Your task to perform on an android device: delete location history Image 0: 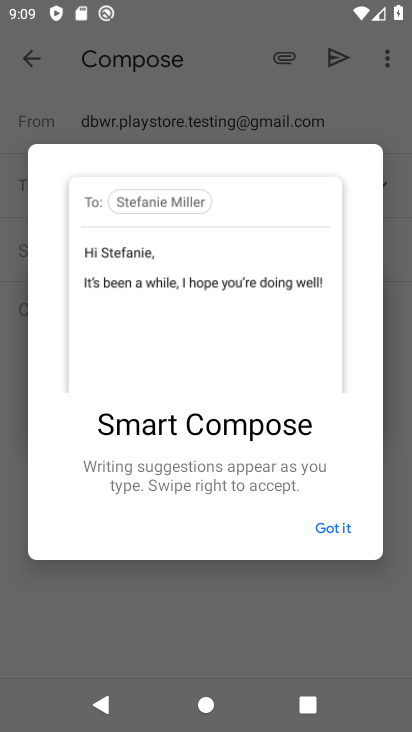
Step 0: press home button
Your task to perform on an android device: delete location history Image 1: 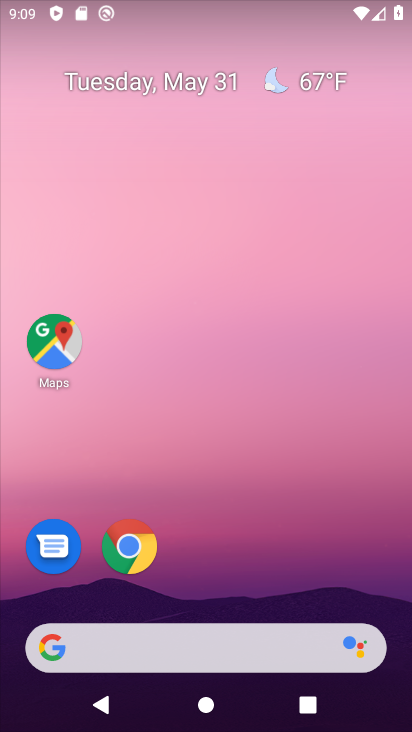
Step 1: click (51, 337)
Your task to perform on an android device: delete location history Image 2: 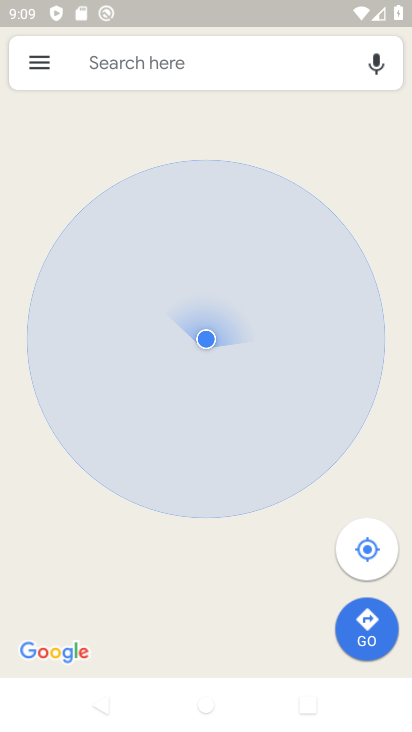
Step 2: click (40, 57)
Your task to perform on an android device: delete location history Image 3: 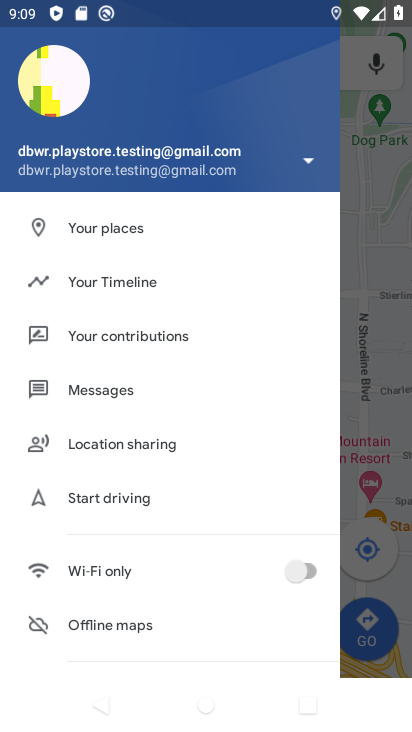
Step 3: click (122, 282)
Your task to perform on an android device: delete location history Image 4: 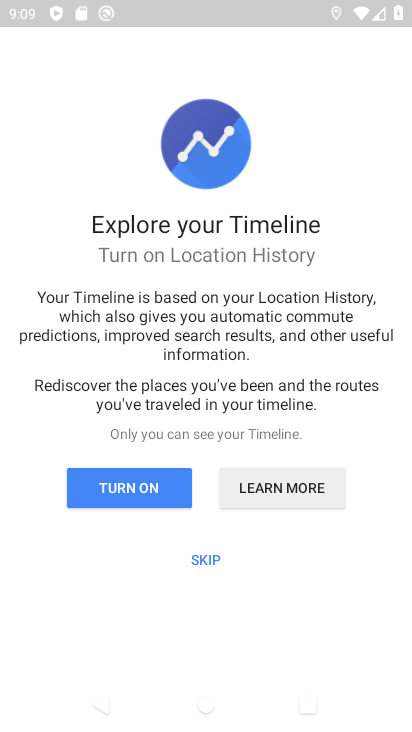
Step 4: click (209, 551)
Your task to perform on an android device: delete location history Image 5: 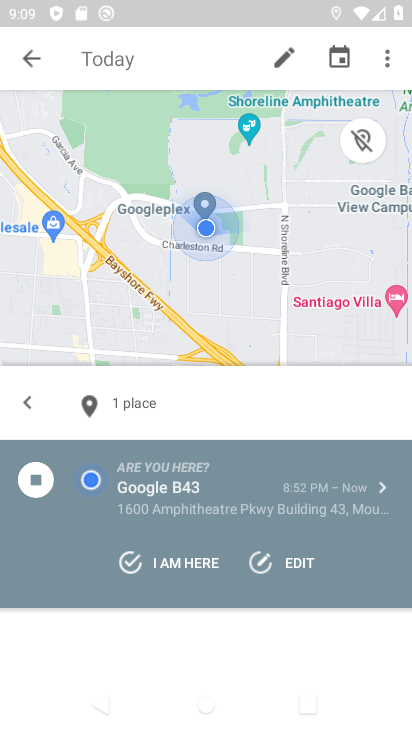
Step 5: click (382, 59)
Your task to perform on an android device: delete location history Image 6: 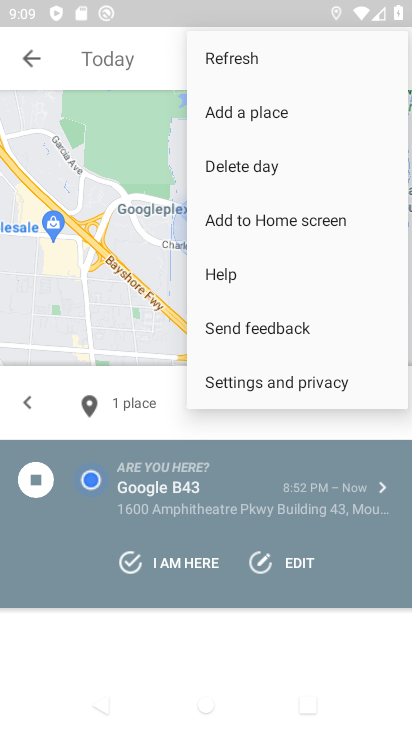
Step 6: click (278, 390)
Your task to perform on an android device: delete location history Image 7: 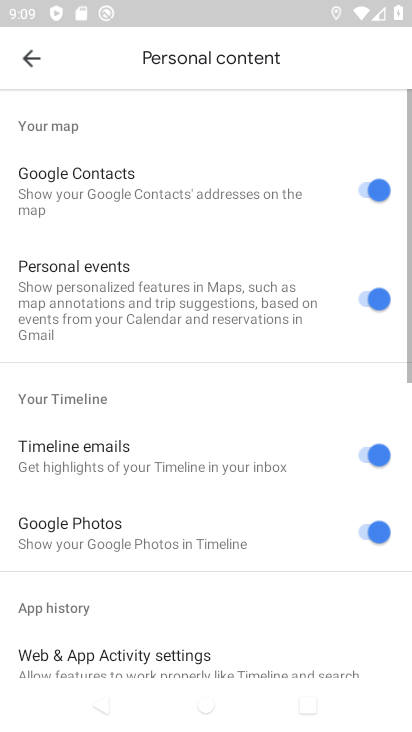
Step 7: drag from (118, 551) to (160, 86)
Your task to perform on an android device: delete location history Image 8: 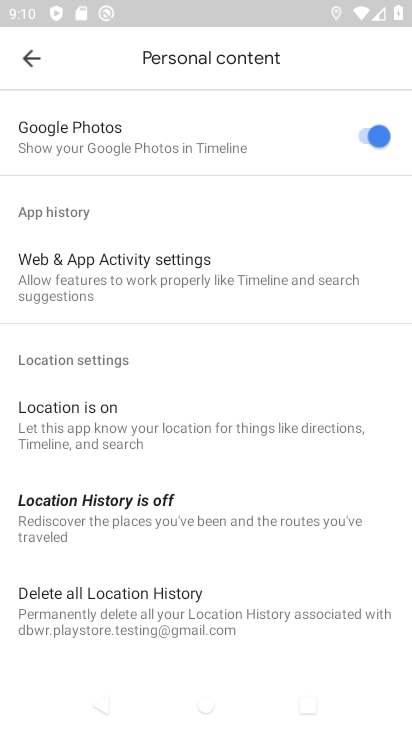
Step 8: click (156, 601)
Your task to perform on an android device: delete location history Image 9: 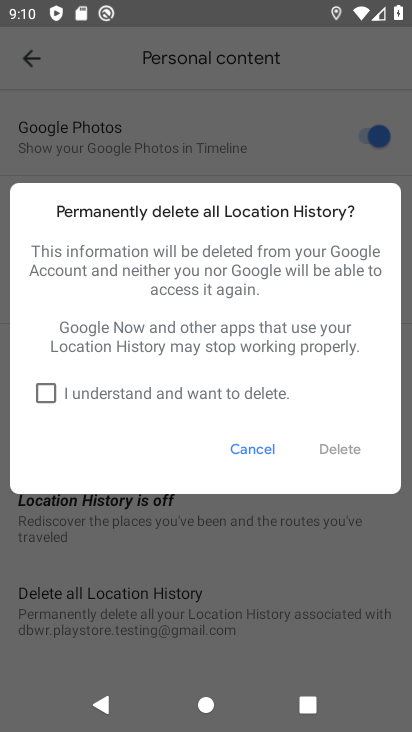
Step 9: click (57, 384)
Your task to perform on an android device: delete location history Image 10: 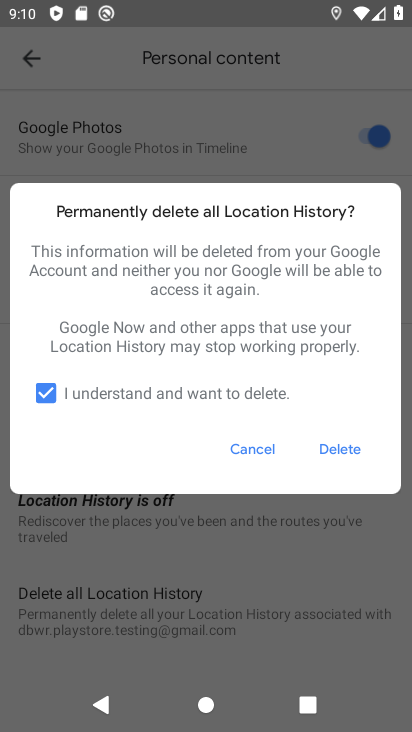
Step 10: click (344, 454)
Your task to perform on an android device: delete location history Image 11: 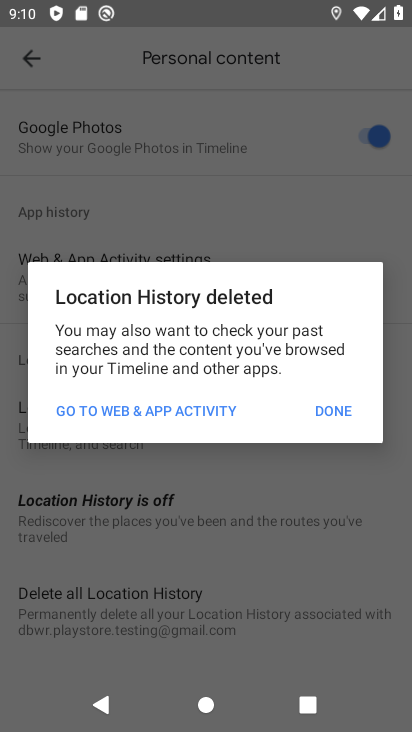
Step 11: click (345, 418)
Your task to perform on an android device: delete location history Image 12: 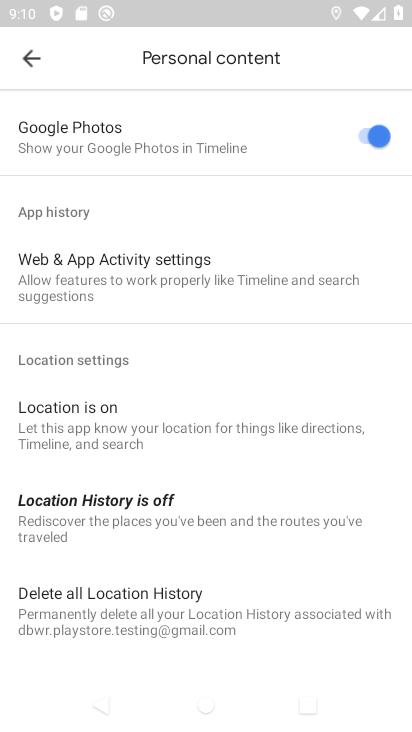
Step 12: task complete